Your task to perform on an android device: What is the news today? Image 0: 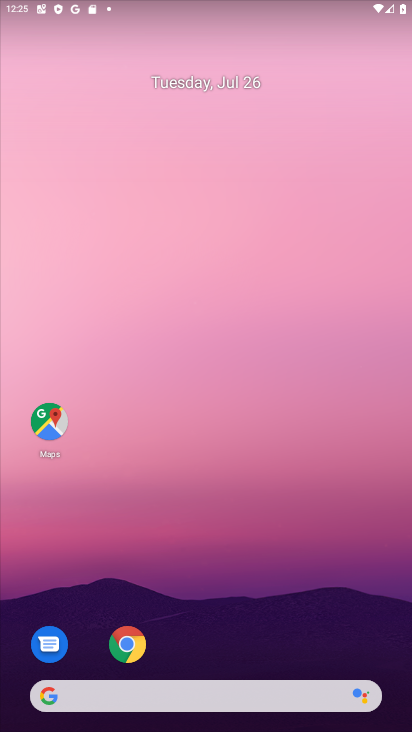
Step 0: click (138, 691)
Your task to perform on an android device: What is the news today? Image 1: 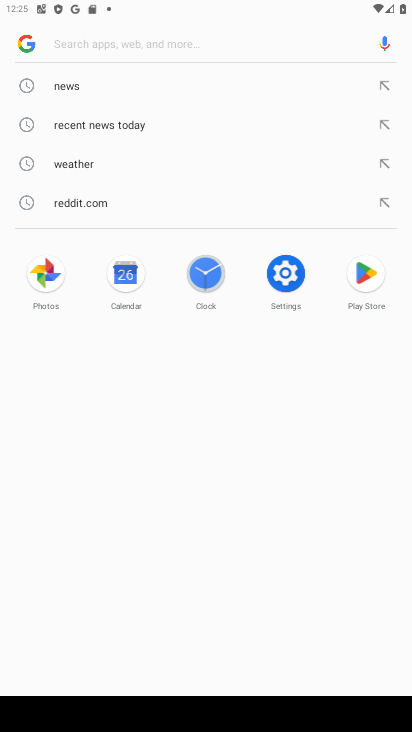
Step 1: type "news today"
Your task to perform on an android device: What is the news today? Image 2: 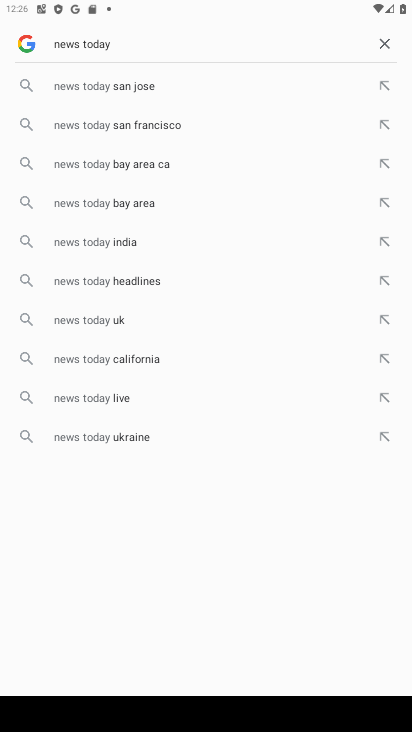
Step 2: click (114, 247)
Your task to perform on an android device: What is the news today? Image 3: 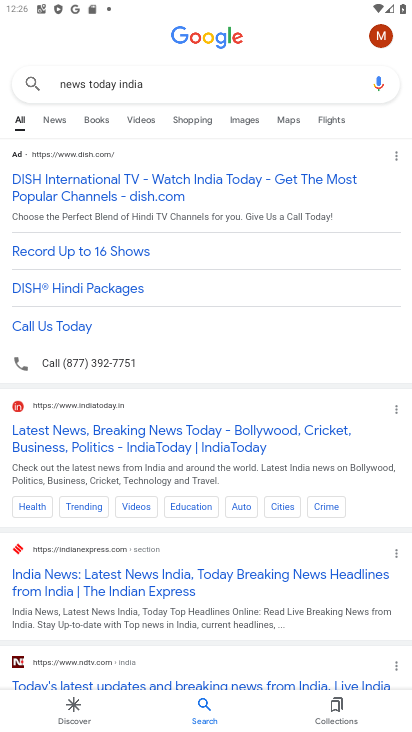
Step 3: click (61, 128)
Your task to perform on an android device: What is the news today? Image 4: 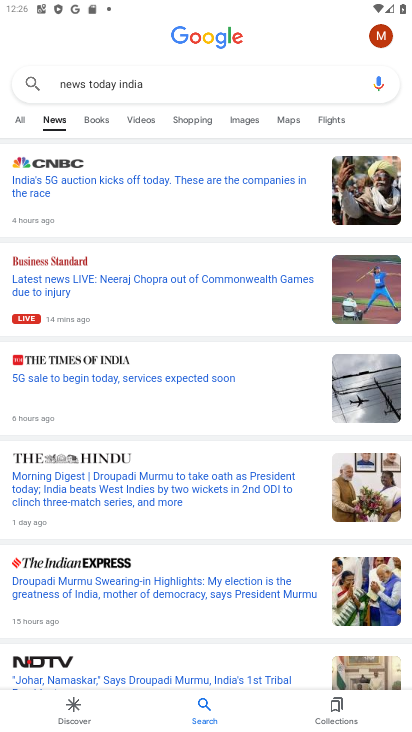
Step 4: click (79, 194)
Your task to perform on an android device: What is the news today? Image 5: 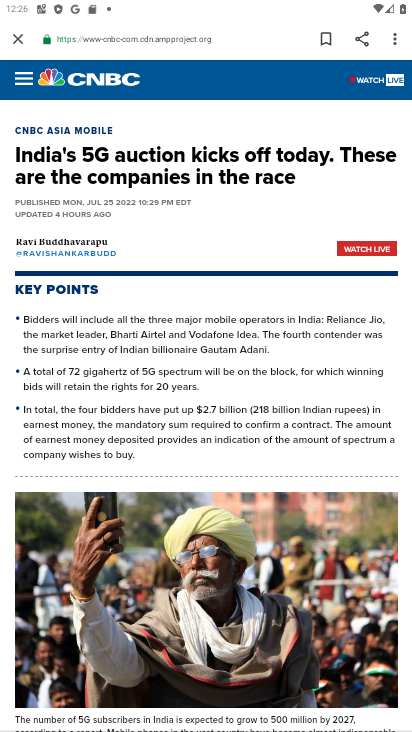
Step 5: task complete